Your task to perform on an android device: Open calendar and show me the first week of next month Image 0: 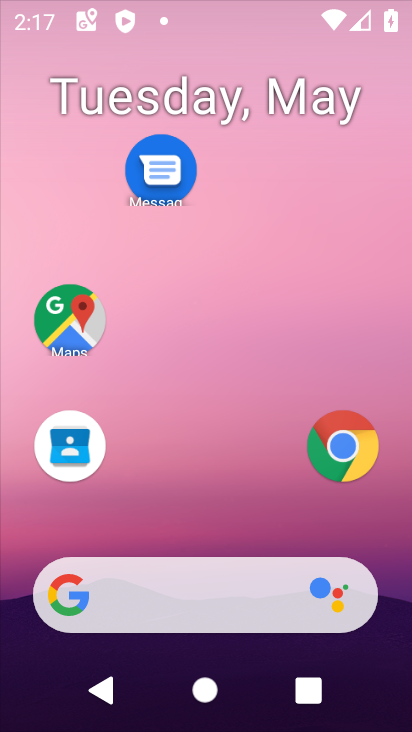
Step 0: drag from (213, 538) to (139, 35)
Your task to perform on an android device: Open calendar and show me the first week of next month Image 1: 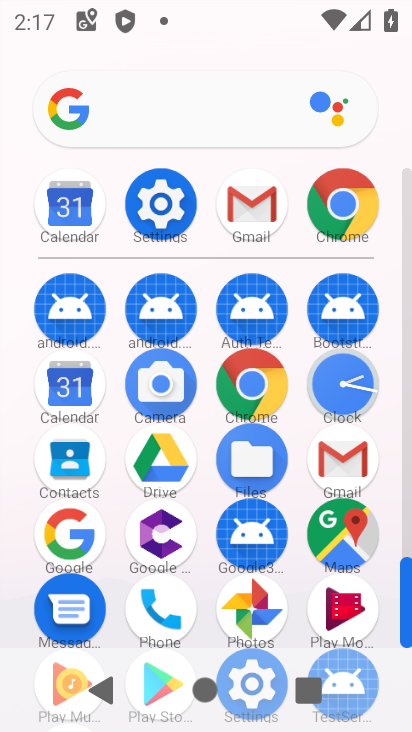
Step 1: click (79, 395)
Your task to perform on an android device: Open calendar and show me the first week of next month Image 2: 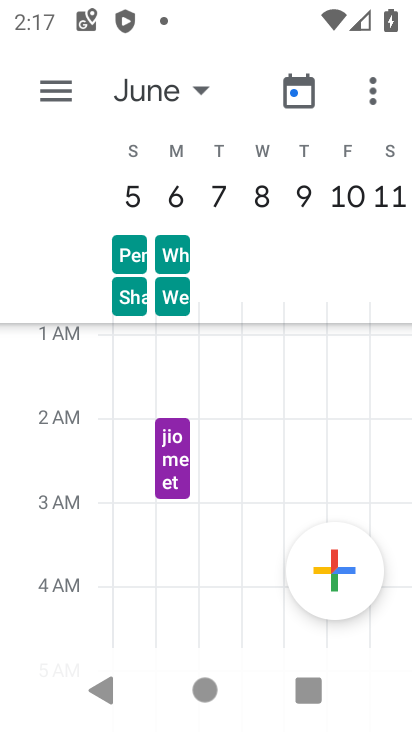
Step 2: task complete